Your task to perform on an android device: Open Chrome and go to settings Image 0: 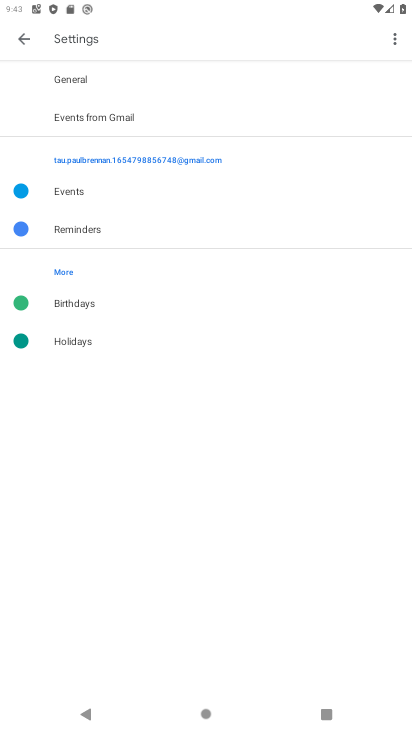
Step 0: press home button
Your task to perform on an android device: Open Chrome and go to settings Image 1: 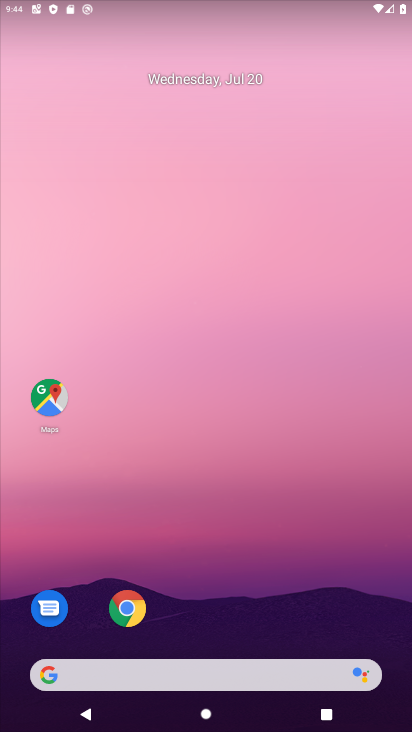
Step 1: click (129, 615)
Your task to perform on an android device: Open Chrome and go to settings Image 2: 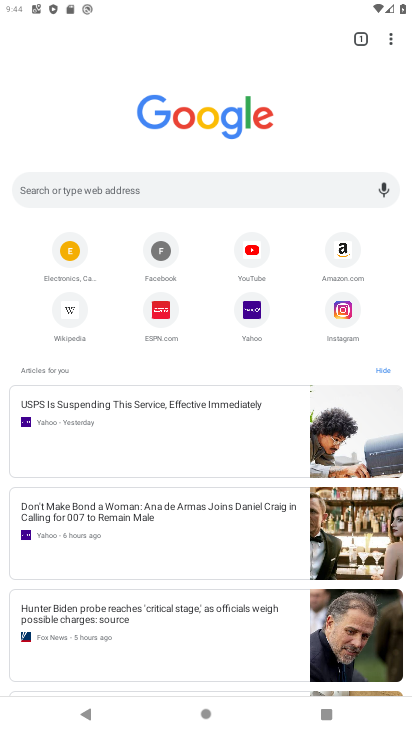
Step 2: click (383, 38)
Your task to perform on an android device: Open Chrome and go to settings Image 3: 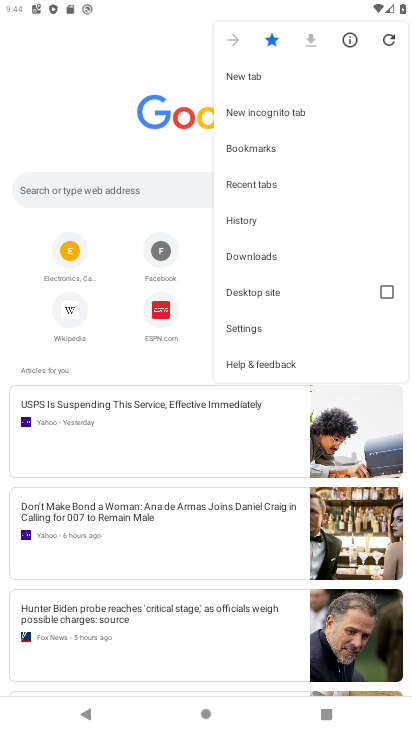
Step 3: click (255, 331)
Your task to perform on an android device: Open Chrome and go to settings Image 4: 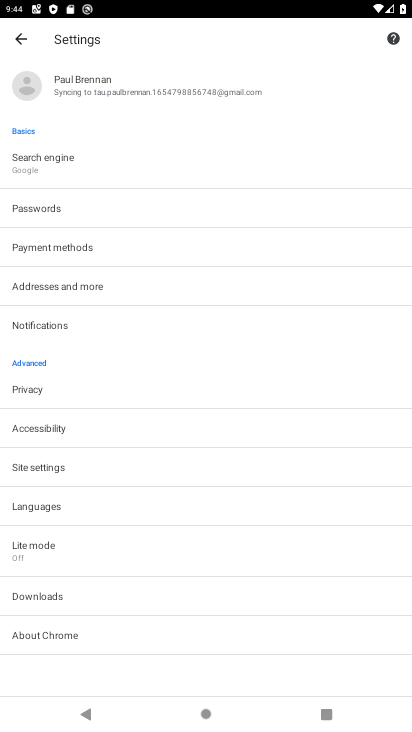
Step 4: task complete